Your task to perform on an android device: change notification settings in the gmail app Image 0: 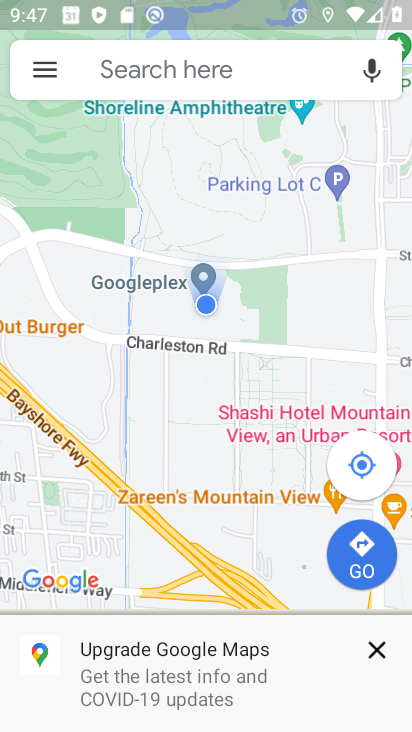
Step 0: press home button
Your task to perform on an android device: change notification settings in the gmail app Image 1: 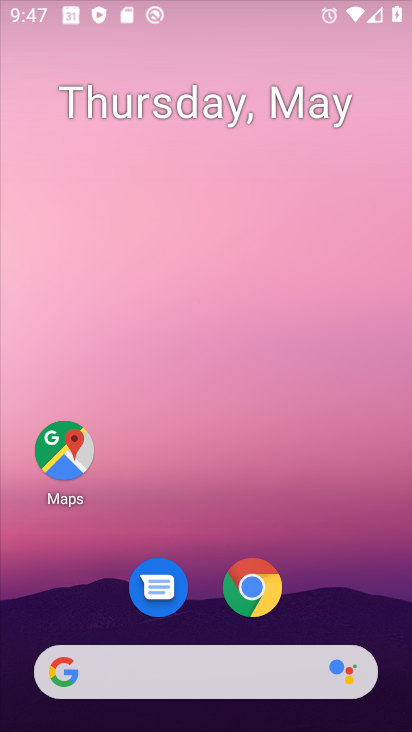
Step 1: drag from (393, 655) to (239, 48)
Your task to perform on an android device: change notification settings in the gmail app Image 2: 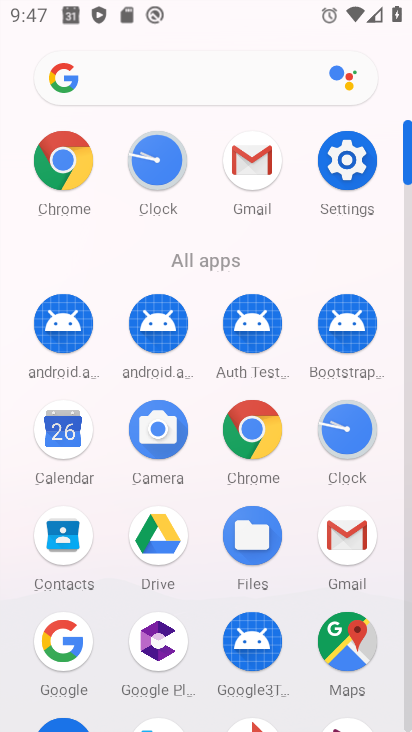
Step 2: click (348, 529)
Your task to perform on an android device: change notification settings in the gmail app Image 3: 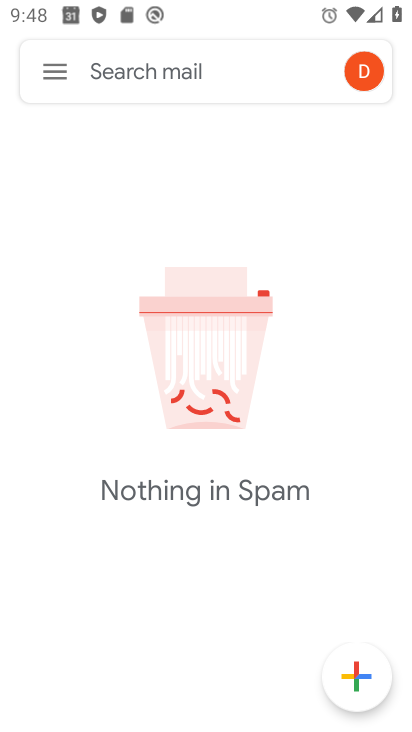
Step 3: click (55, 76)
Your task to perform on an android device: change notification settings in the gmail app Image 4: 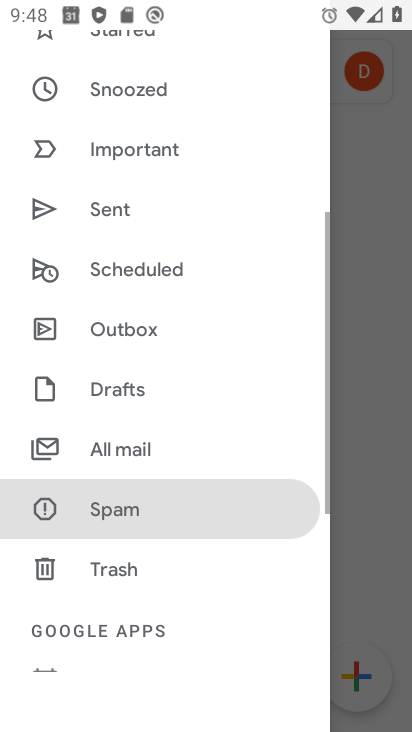
Step 4: drag from (97, 614) to (156, 162)
Your task to perform on an android device: change notification settings in the gmail app Image 5: 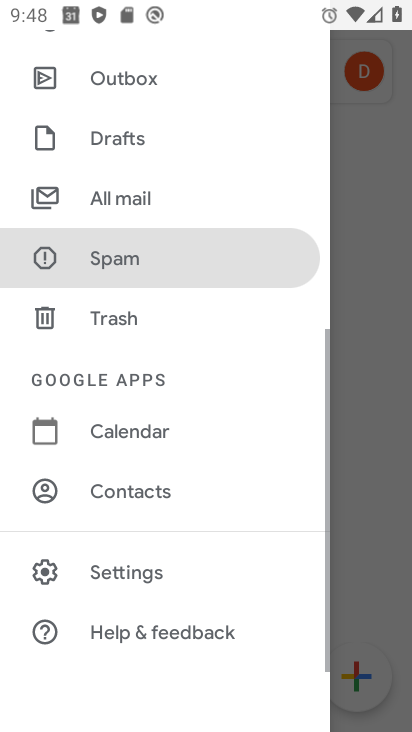
Step 5: click (177, 581)
Your task to perform on an android device: change notification settings in the gmail app Image 6: 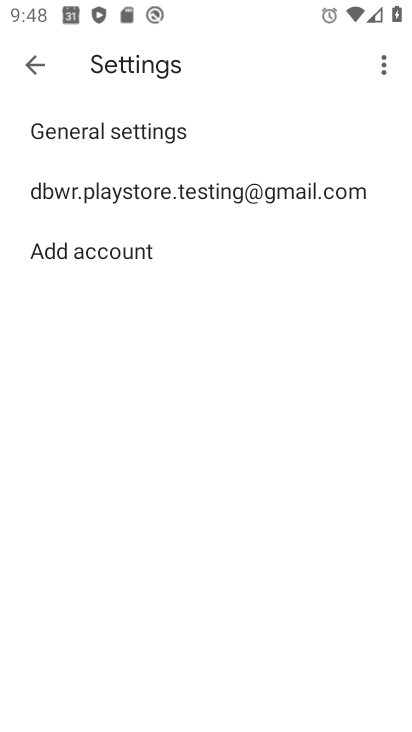
Step 6: click (83, 173)
Your task to perform on an android device: change notification settings in the gmail app Image 7: 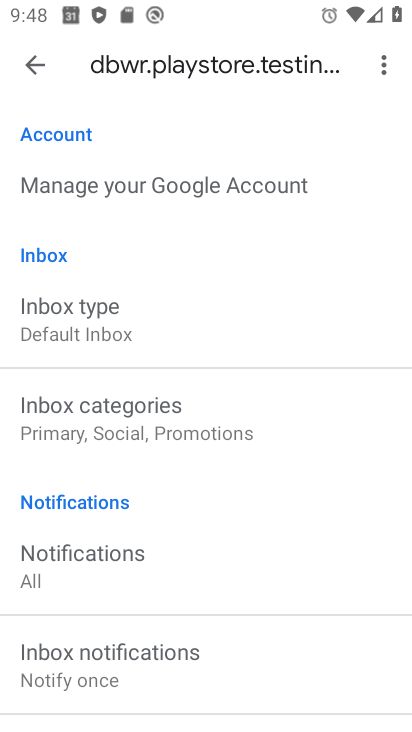
Step 7: click (112, 593)
Your task to perform on an android device: change notification settings in the gmail app Image 8: 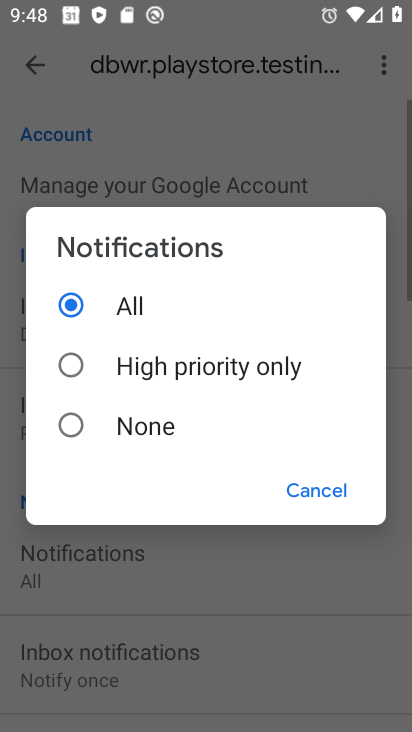
Step 8: click (55, 429)
Your task to perform on an android device: change notification settings in the gmail app Image 9: 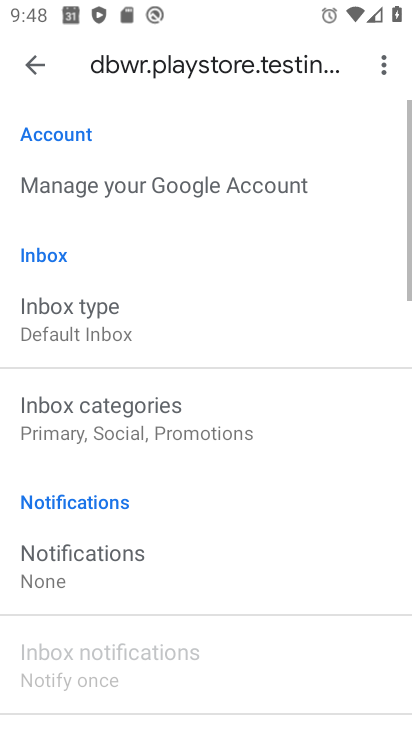
Step 9: task complete